Your task to perform on an android device: Add alienware area 51 to the cart on newegg Image 0: 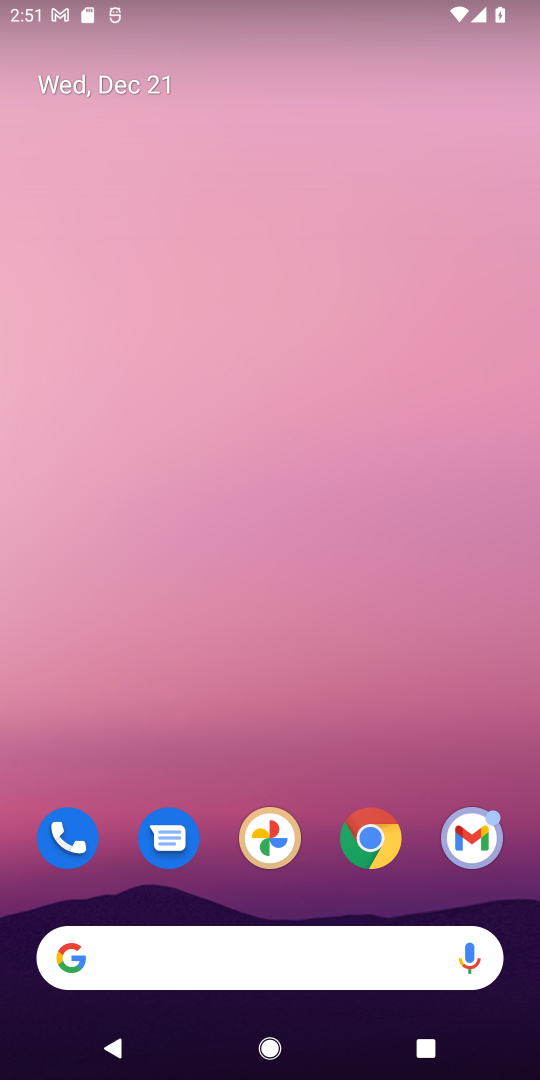
Step 0: click (346, 852)
Your task to perform on an android device: Add alienware area 51 to the cart on newegg Image 1: 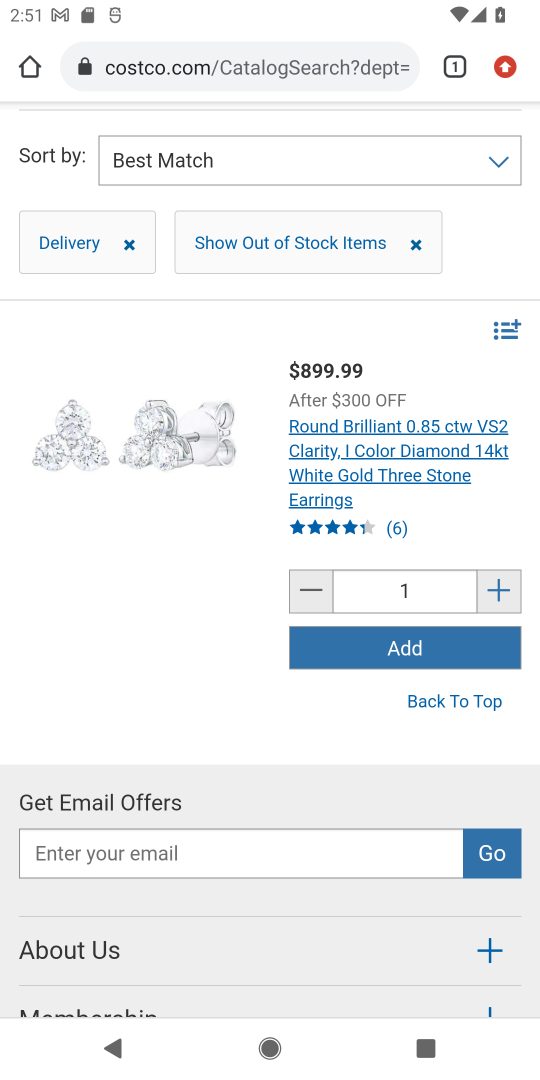
Step 1: click (274, 54)
Your task to perform on an android device: Add alienware area 51 to the cart on newegg Image 2: 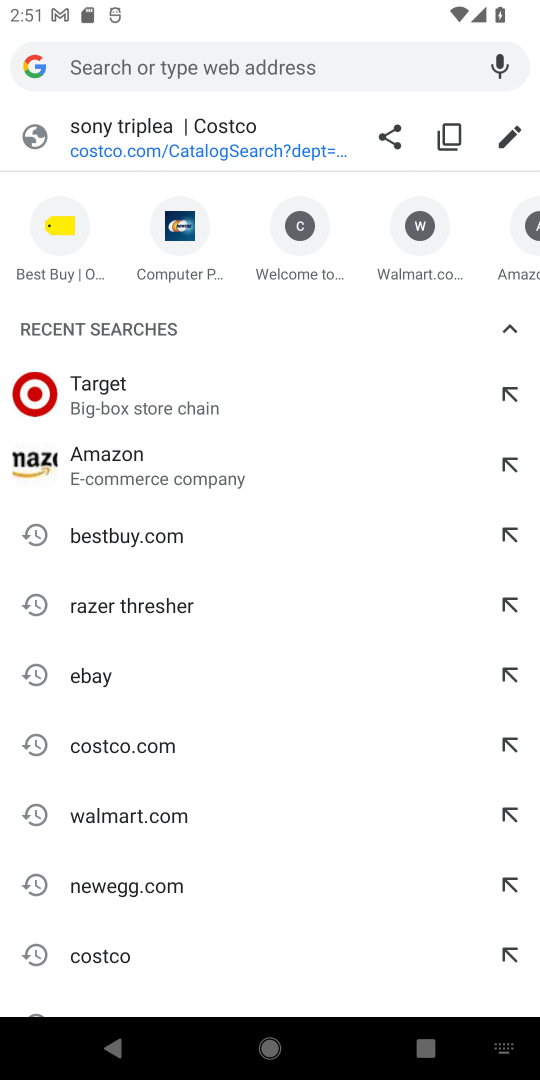
Step 2: type "newegg"
Your task to perform on an android device: Add alienware area 51 to the cart on newegg Image 3: 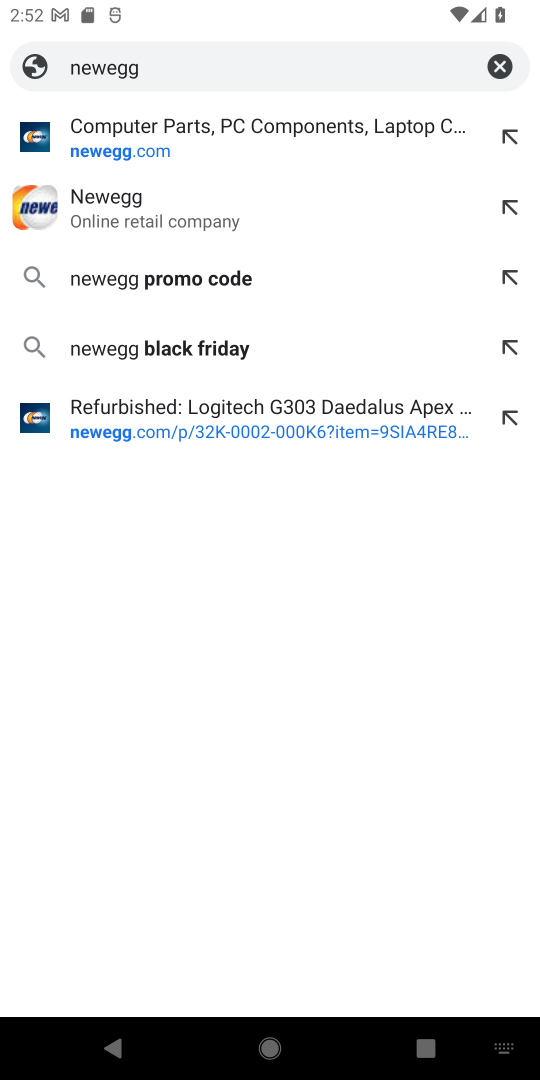
Step 3: click (89, 173)
Your task to perform on an android device: Add alienware area 51 to the cart on newegg Image 4: 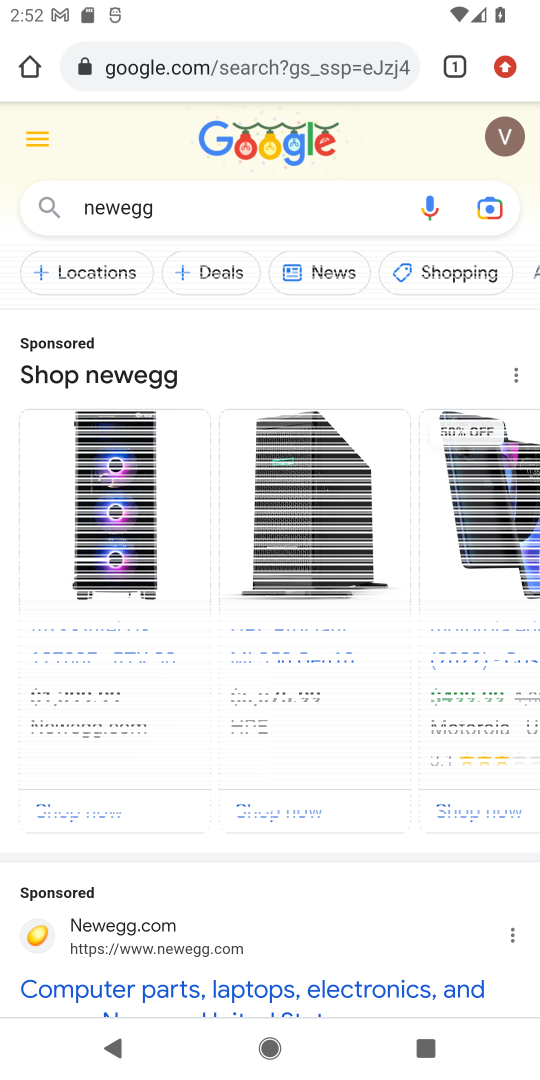
Step 4: click (98, 946)
Your task to perform on an android device: Add alienware area 51 to the cart on newegg Image 5: 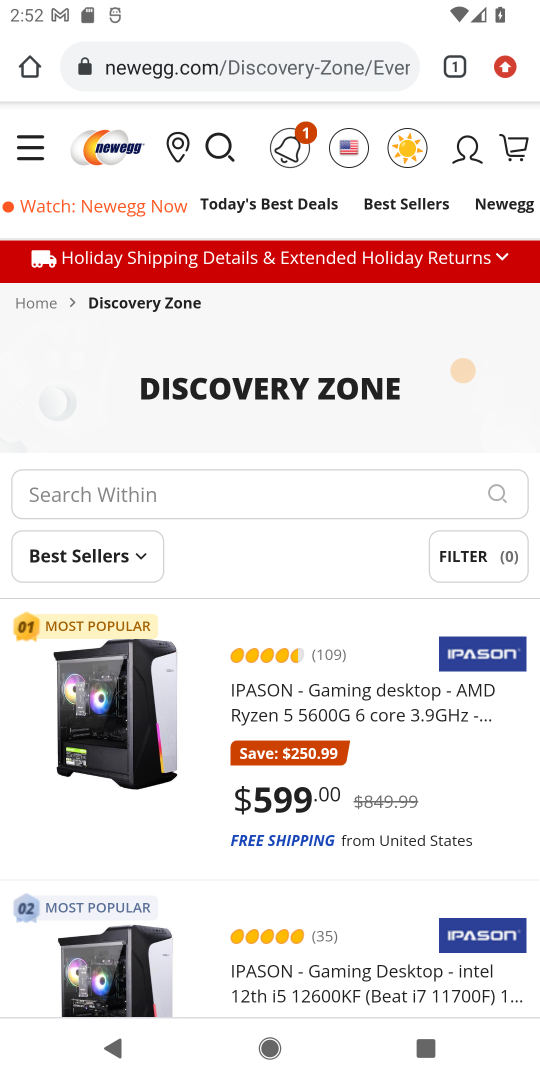
Step 5: click (226, 148)
Your task to perform on an android device: Add alienware area 51 to the cart on newegg Image 6: 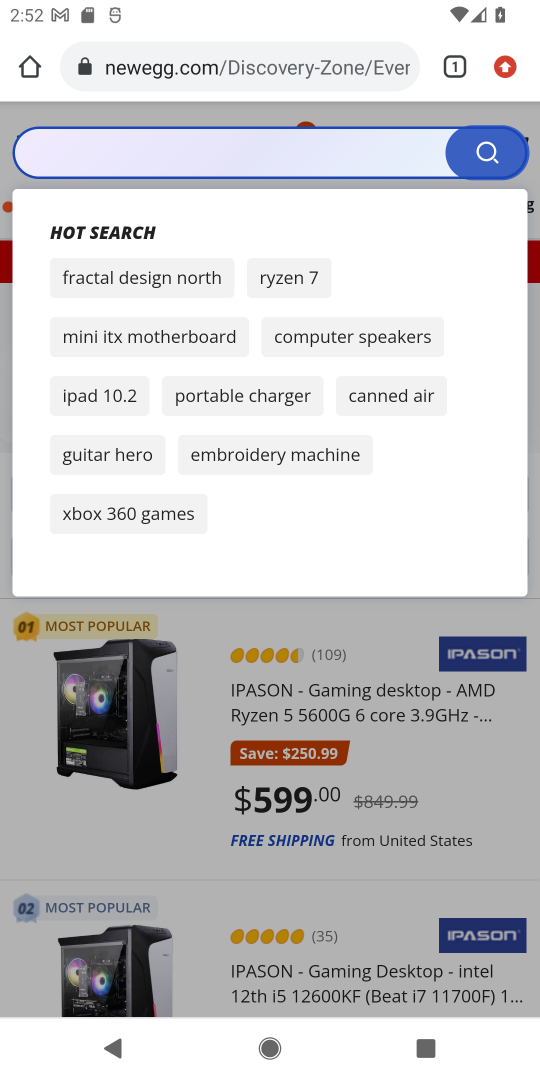
Step 6: type "alienware area 51"
Your task to perform on an android device: Add alienware area 51 to the cart on newegg Image 7: 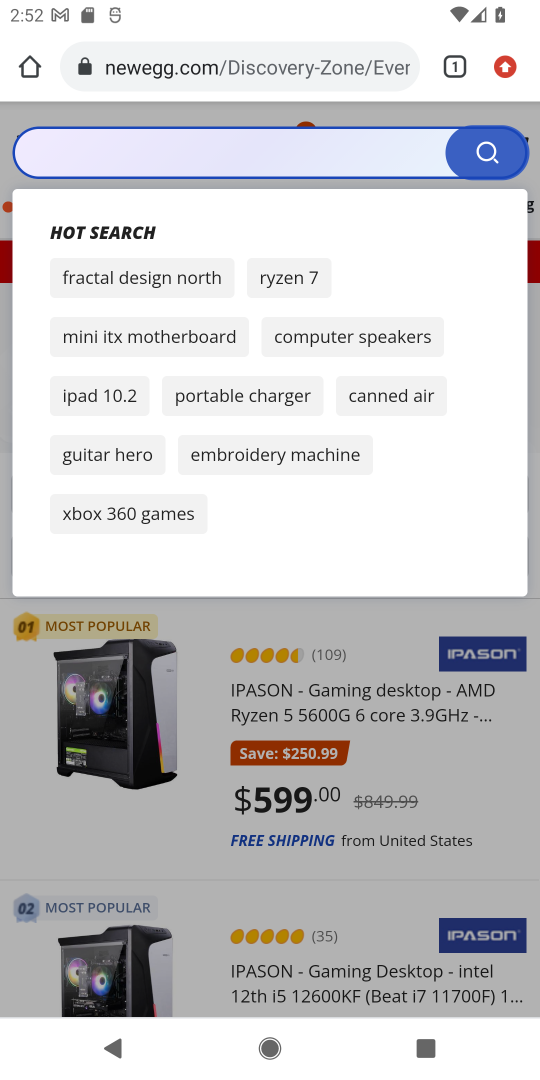
Step 7: click (226, 166)
Your task to perform on an android device: Add alienware area 51 to the cart on newegg Image 8: 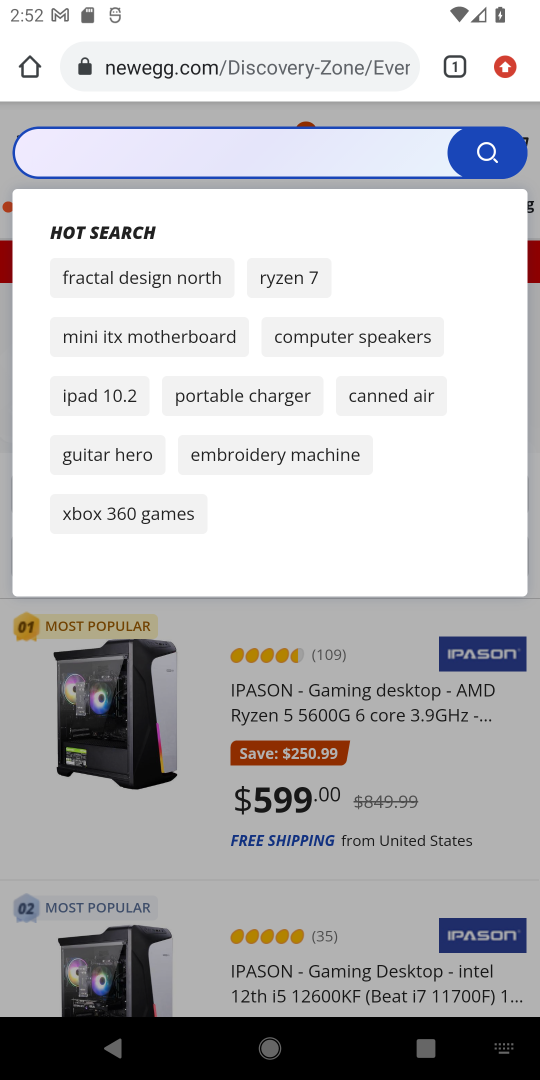
Step 8: type "alienware area 51"
Your task to perform on an android device: Add alienware area 51 to the cart on newegg Image 9: 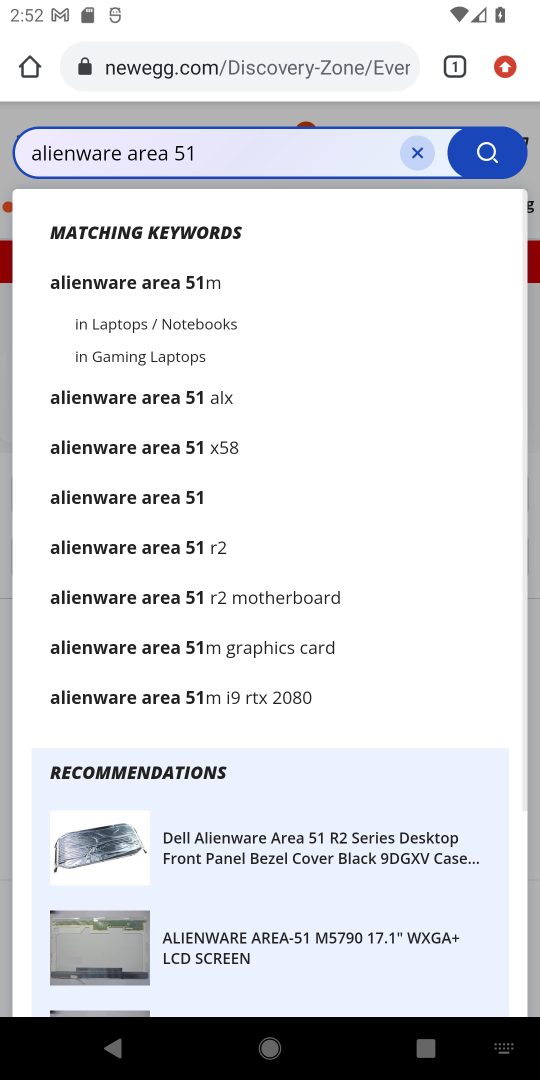
Step 9: click (493, 175)
Your task to perform on an android device: Add alienware area 51 to the cart on newegg Image 10: 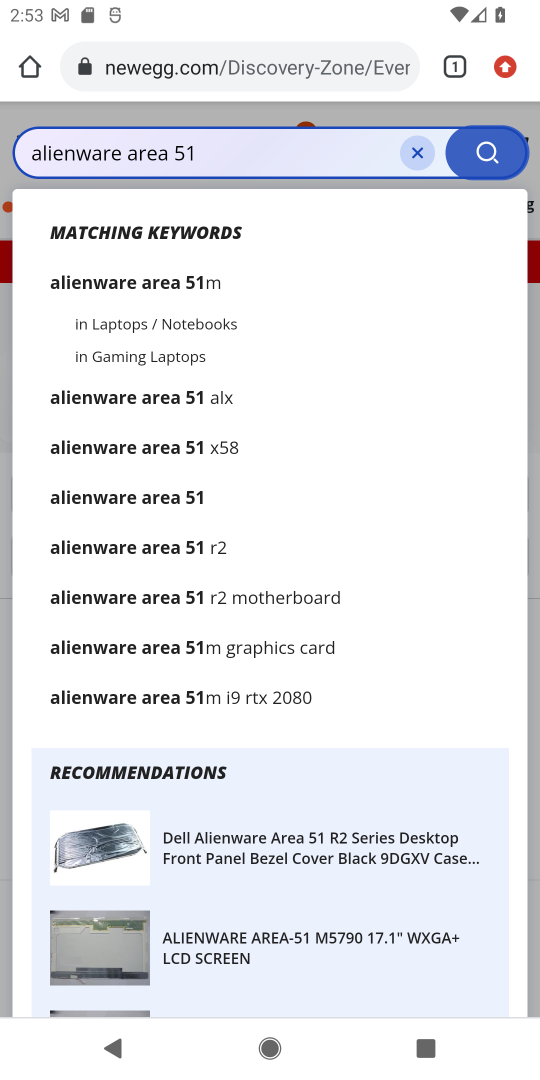
Step 10: click (507, 164)
Your task to perform on an android device: Add alienware area 51 to the cart on newegg Image 11: 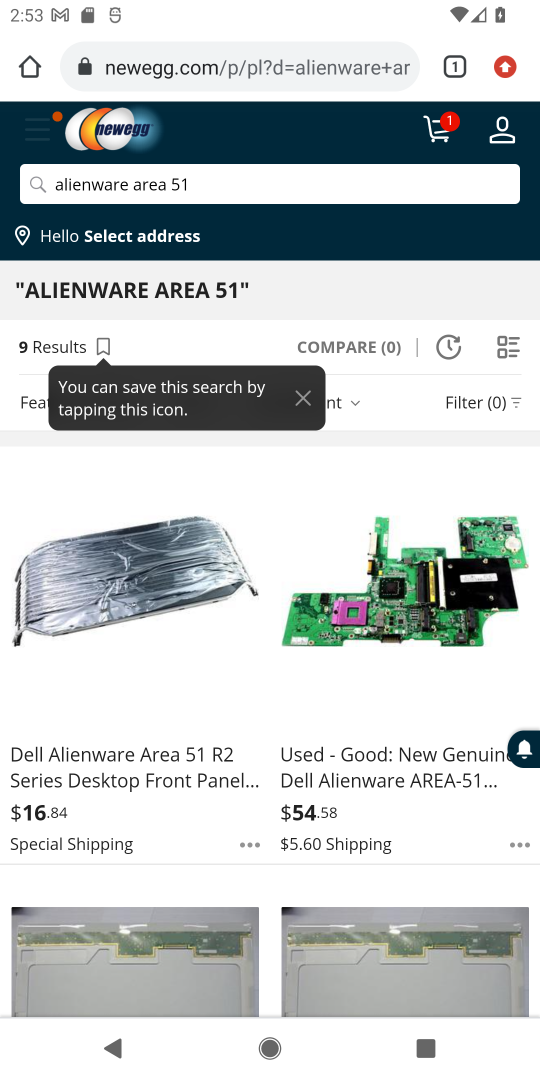
Step 11: click (307, 403)
Your task to perform on an android device: Add alienware area 51 to the cart on newegg Image 12: 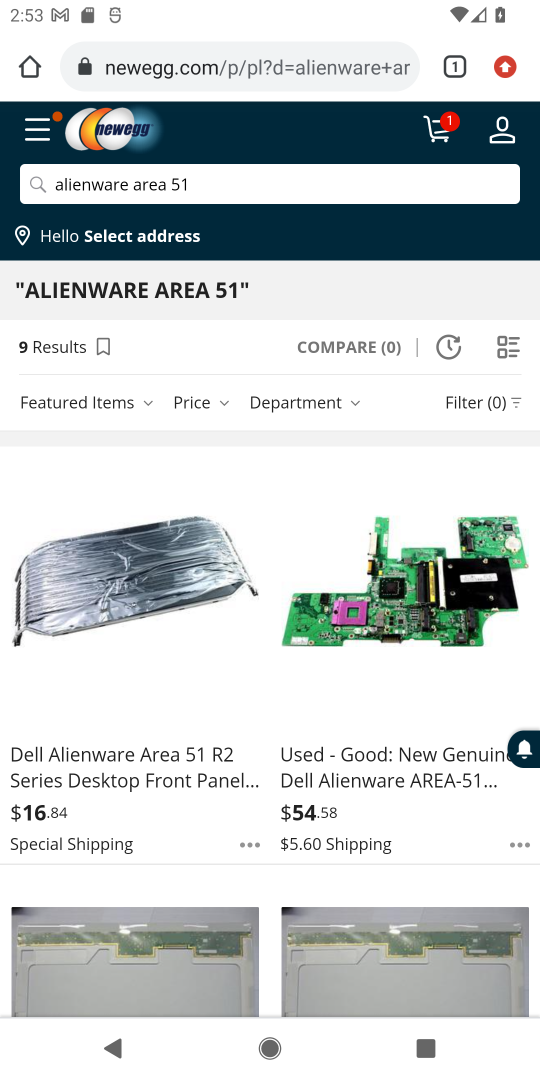
Step 12: click (182, 753)
Your task to perform on an android device: Add alienware area 51 to the cart on newegg Image 13: 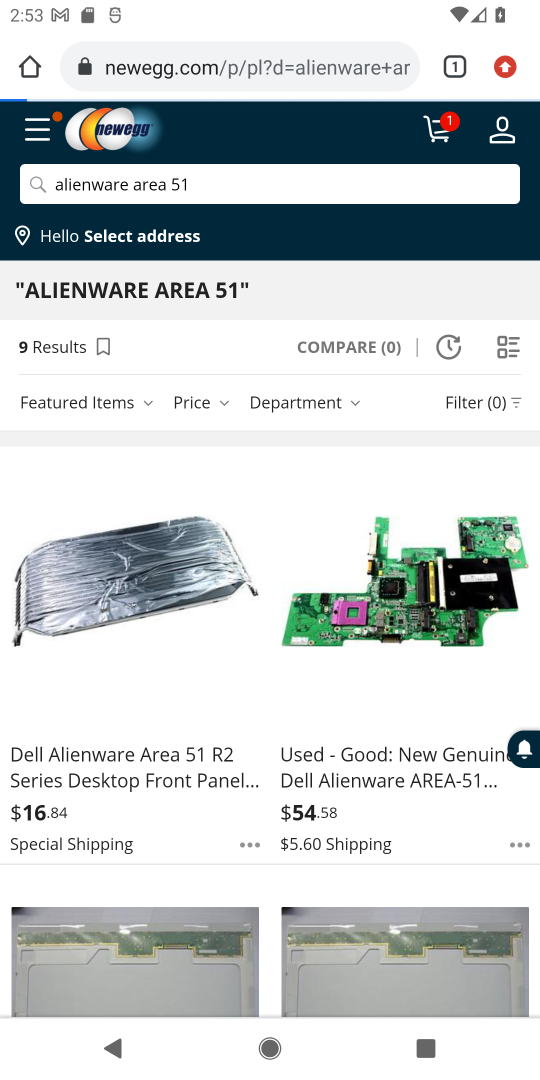
Step 13: task complete